Your task to perform on an android device: Turn off the flashlight Image 0: 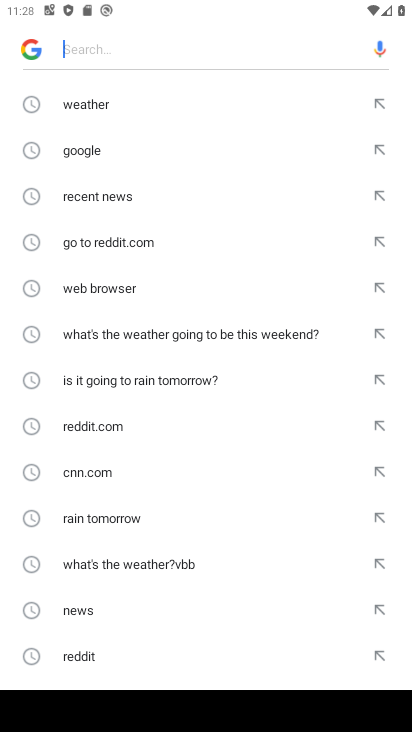
Step 0: press home button
Your task to perform on an android device: Turn off the flashlight Image 1: 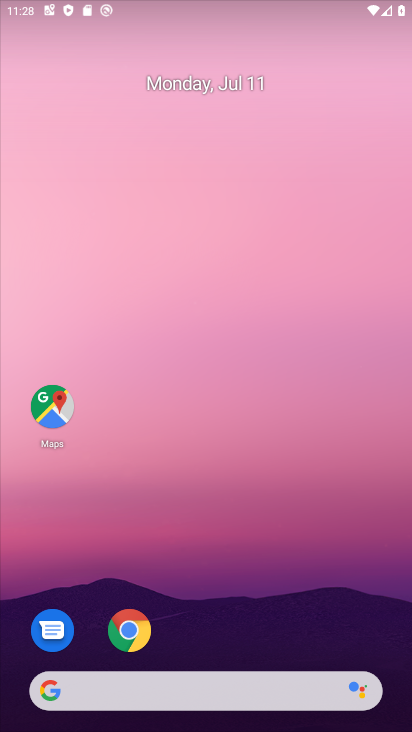
Step 1: drag from (225, 614) to (406, 368)
Your task to perform on an android device: Turn off the flashlight Image 2: 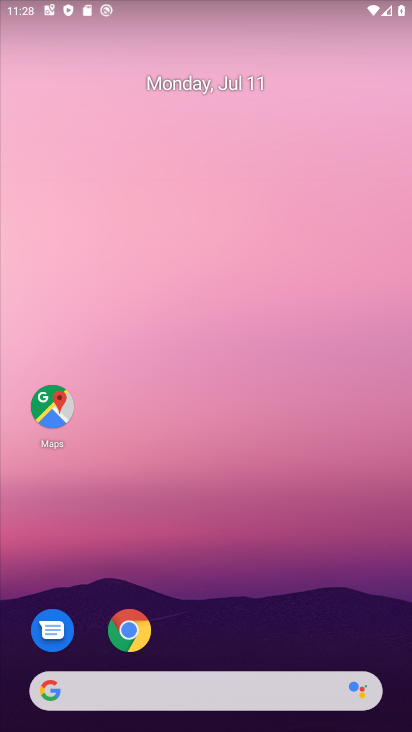
Step 2: drag from (237, 619) to (313, 186)
Your task to perform on an android device: Turn off the flashlight Image 3: 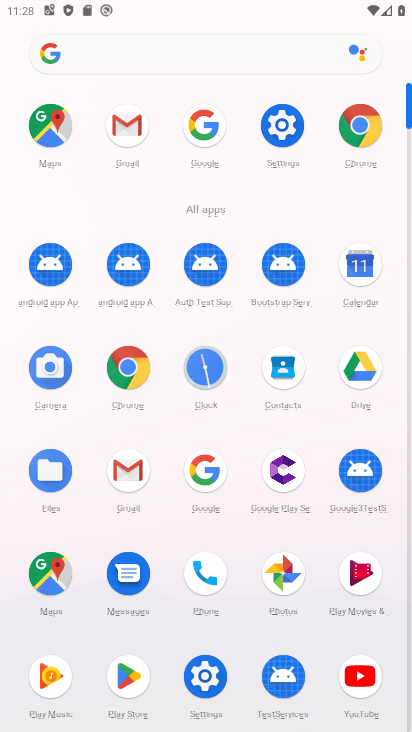
Step 3: click (287, 124)
Your task to perform on an android device: Turn off the flashlight Image 4: 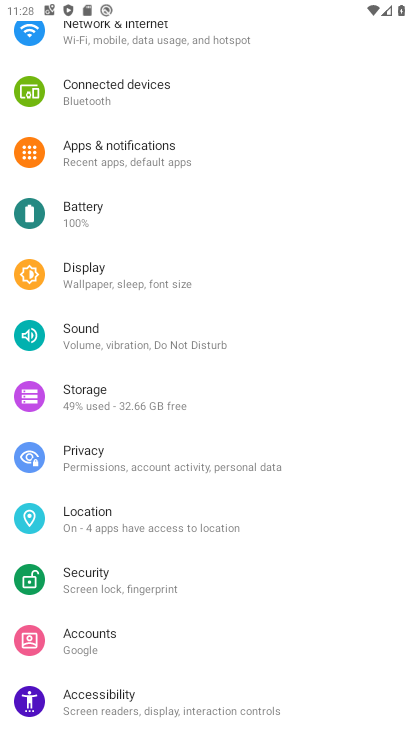
Step 4: drag from (229, 150) to (201, 631)
Your task to perform on an android device: Turn off the flashlight Image 5: 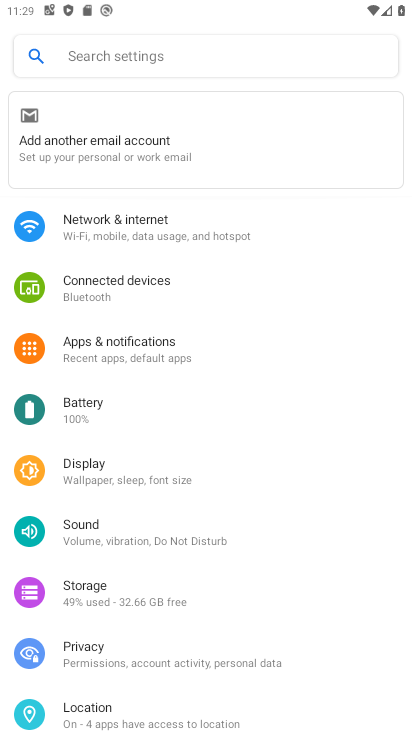
Step 5: click (146, 61)
Your task to perform on an android device: Turn off the flashlight Image 6: 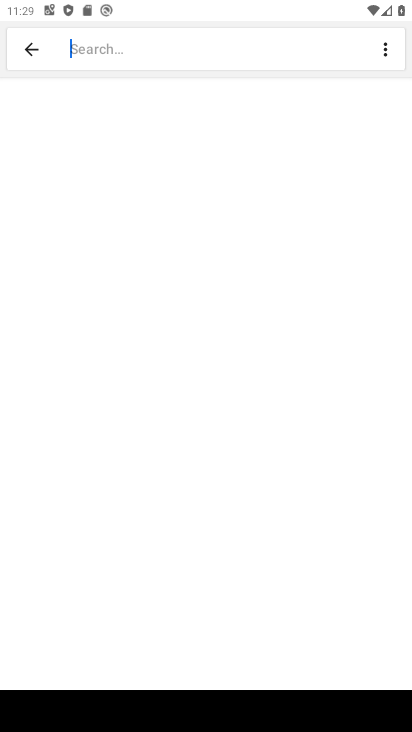
Step 6: type ""
Your task to perform on an android device: Turn off the flashlight Image 7: 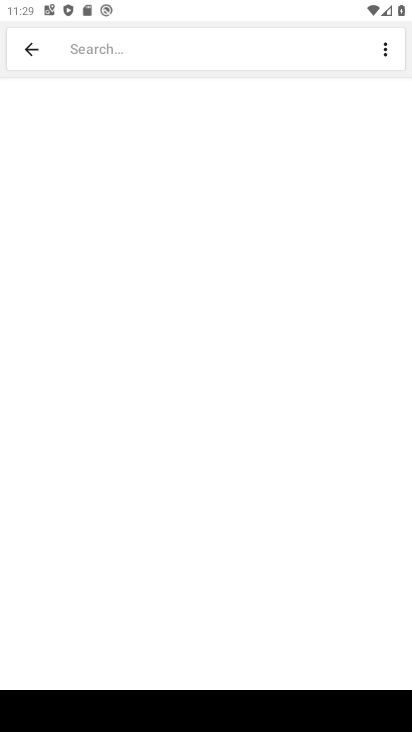
Step 7: type "flashlight"
Your task to perform on an android device: Turn off the flashlight Image 8: 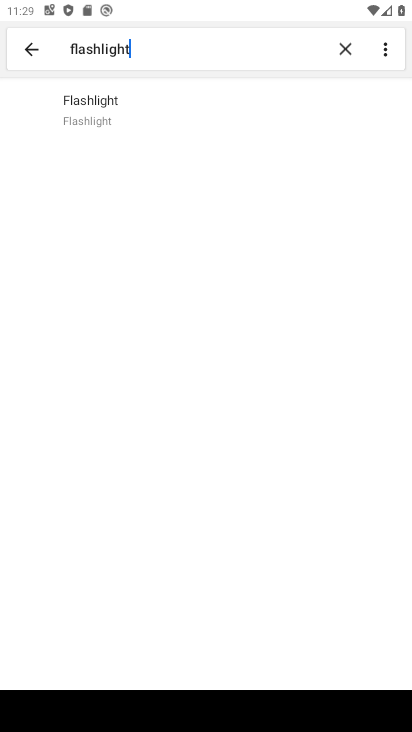
Step 8: task complete